Your task to perform on an android device: toggle notifications settings in the gmail app Image 0: 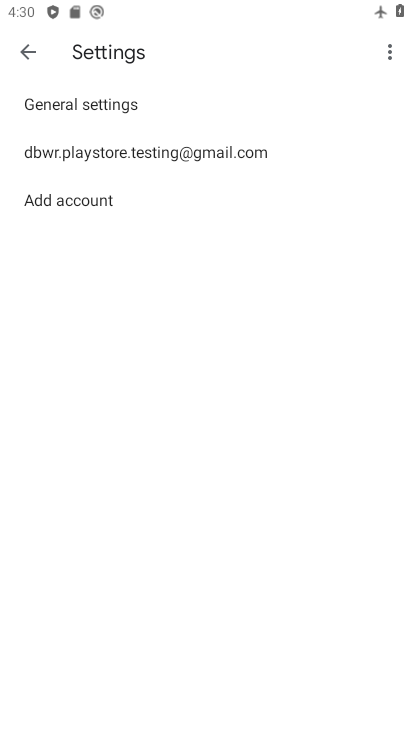
Step 0: press home button
Your task to perform on an android device: toggle notifications settings in the gmail app Image 1: 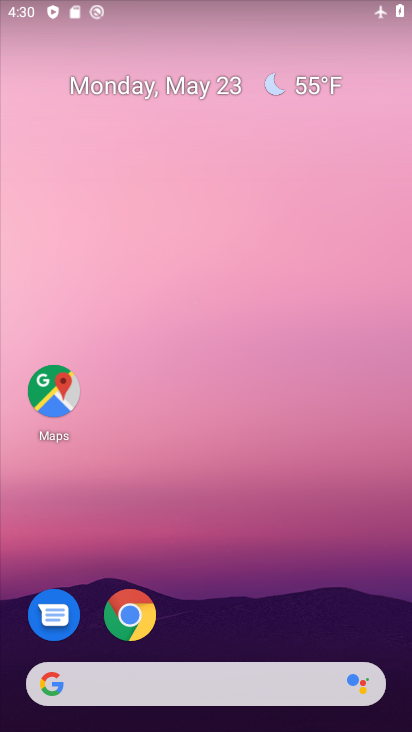
Step 1: drag from (368, 621) to (367, 232)
Your task to perform on an android device: toggle notifications settings in the gmail app Image 2: 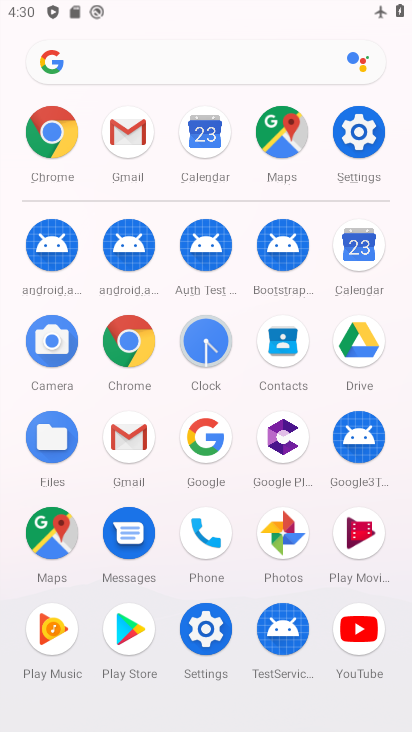
Step 2: click (135, 448)
Your task to perform on an android device: toggle notifications settings in the gmail app Image 3: 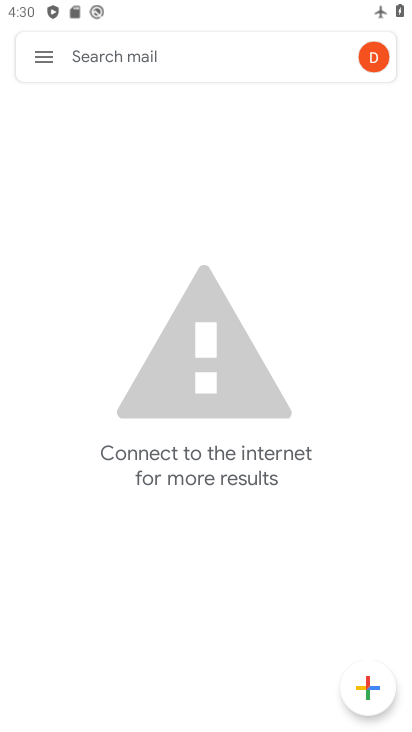
Step 3: click (41, 65)
Your task to perform on an android device: toggle notifications settings in the gmail app Image 4: 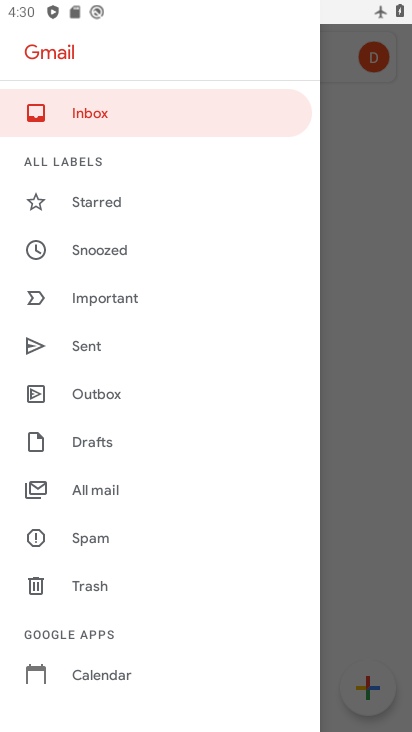
Step 4: drag from (198, 502) to (218, 415)
Your task to perform on an android device: toggle notifications settings in the gmail app Image 5: 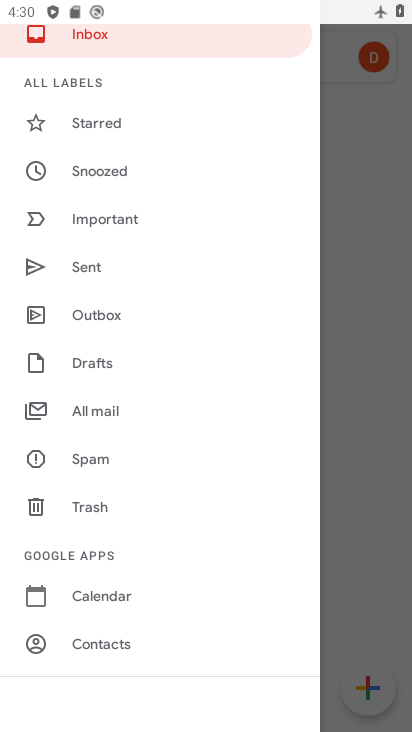
Step 5: drag from (229, 577) to (221, 456)
Your task to perform on an android device: toggle notifications settings in the gmail app Image 6: 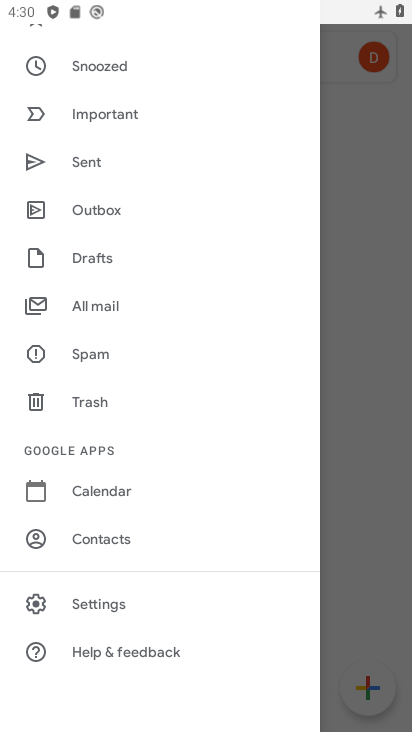
Step 6: drag from (227, 599) to (238, 467)
Your task to perform on an android device: toggle notifications settings in the gmail app Image 7: 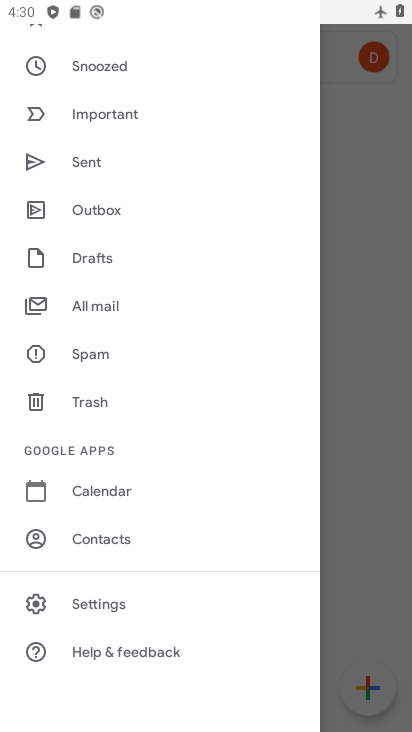
Step 7: click (113, 602)
Your task to perform on an android device: toggle notifications settings in the gmail app Image 8: 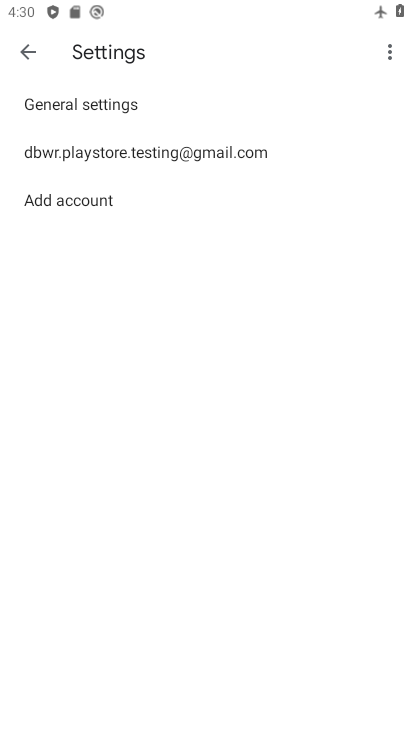
Step 8: click (281, 150)
Your task to perform on an android device: toggle notifications settings in the gmail app Image 9: 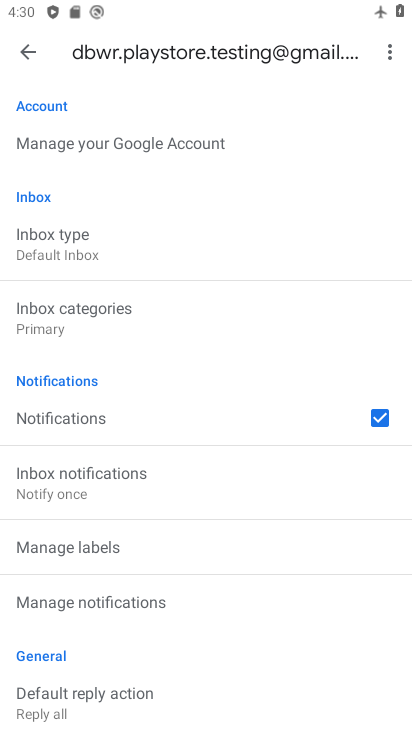
Step 9: drag from (278, 487) to (263, 419)
Your task to perform on an android device: toggle notifications settings in the gmail app Image 10: 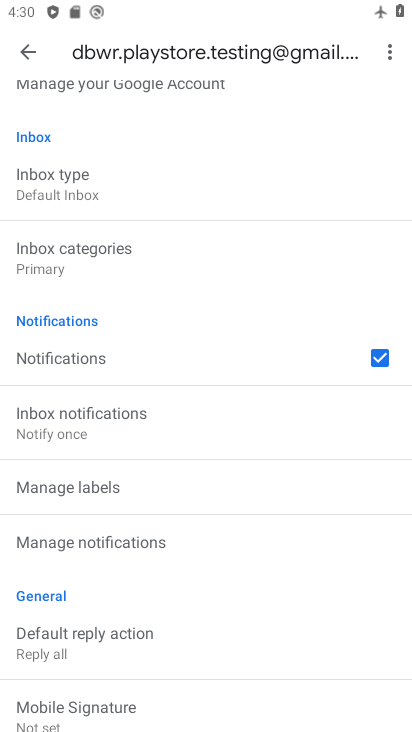
Step 10: drag from (255, 531) to (245, 430)
Your task to perform on an android device: toggle notifications settings in the gmail app Image 11: 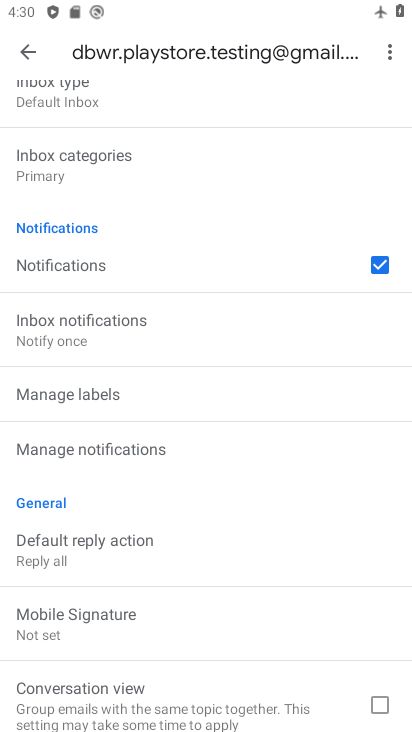
Step 11: drag from (241, 579) to (228, 474)
Your task to perform on an android device: toggle notifications settings in the gmail app Image 12: 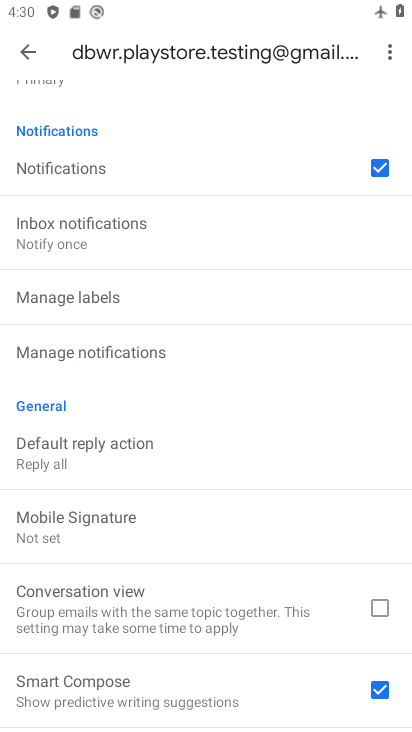
Step 12: click (188, 376)
Your task to perform on an android device: toggle notifications settings in the gmail app Image 13: 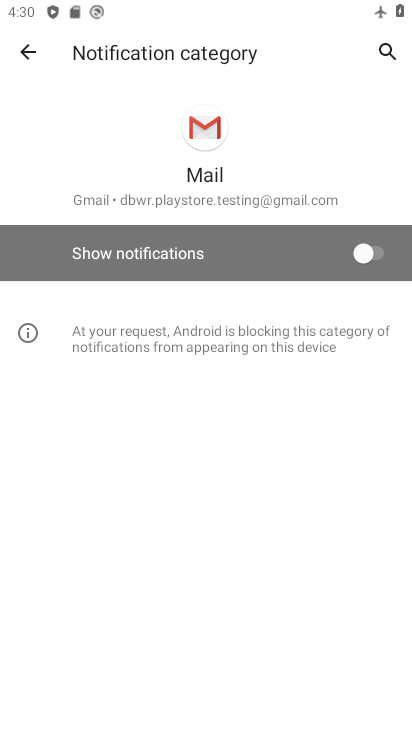
Step 13: click (352, 261)
Your task to perform on an android device: toggle notifications settings in the gmail app Image 14: 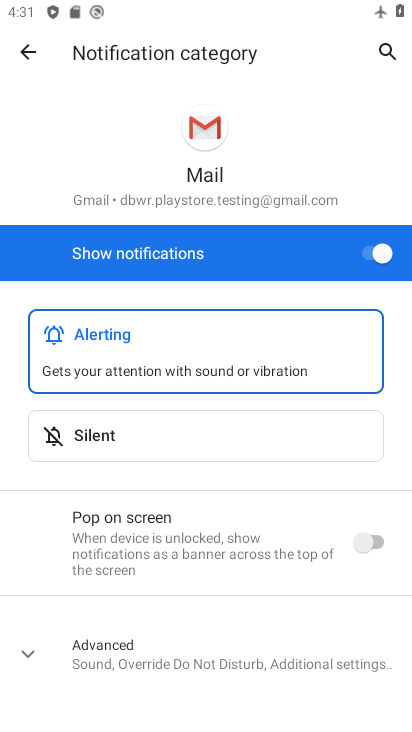
Step 14: task complete